Your task to perform on an android device: turn off notifications settings in the gmail app Image 0: 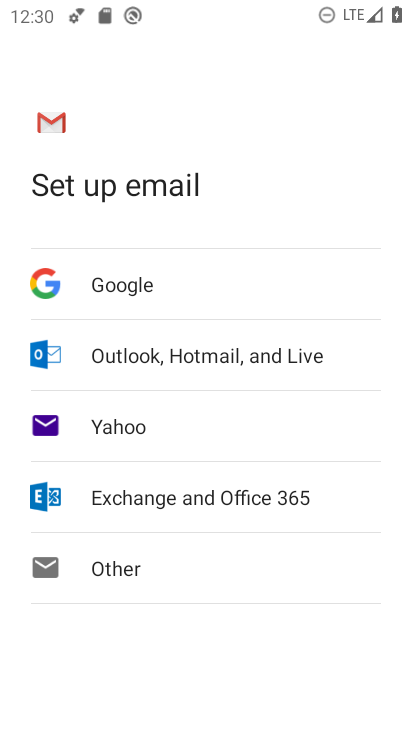
Step 0: press home button
Your task to perform on an android device: turn off notifications settings in the gmail app Image 1: 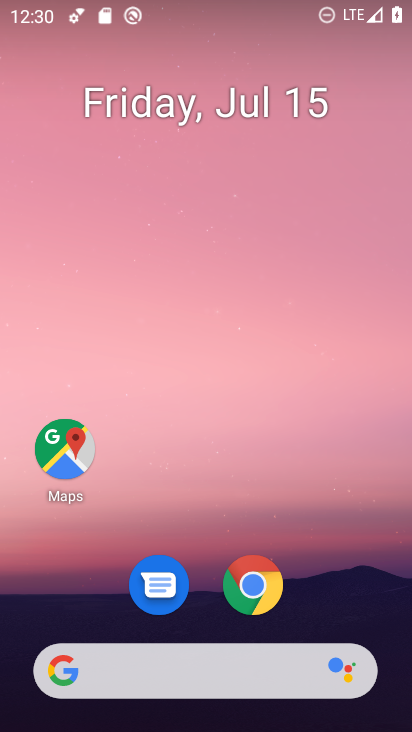
Step 1: drag from (324, 551) to (311, 2)
Your task to perform on an android device: turn off notifications settings in the gmail app Image 2: 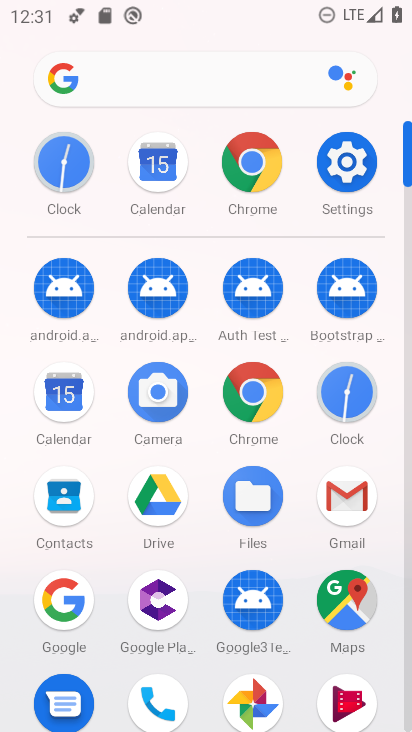
Step 2: click (347, 492)
Your task to perform on an android device: turn off notifications settings in the gmail app Image 3: 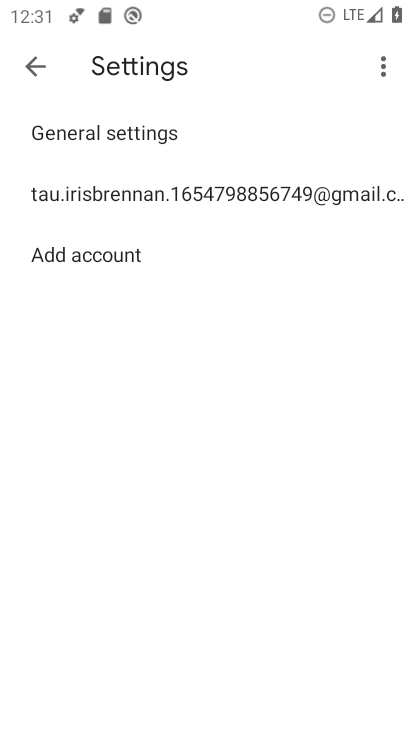
Step 3: click (167, 136)
Your task to perform on an android device: turn off notifications settings in the gmail app Image 4: 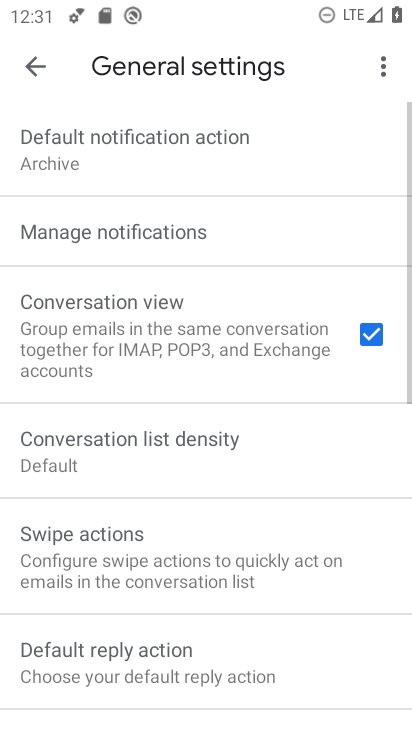
Step 4: click (175, 225)
Your task to perform on an android device: turn off notifications settings in the gmail app Image 5: 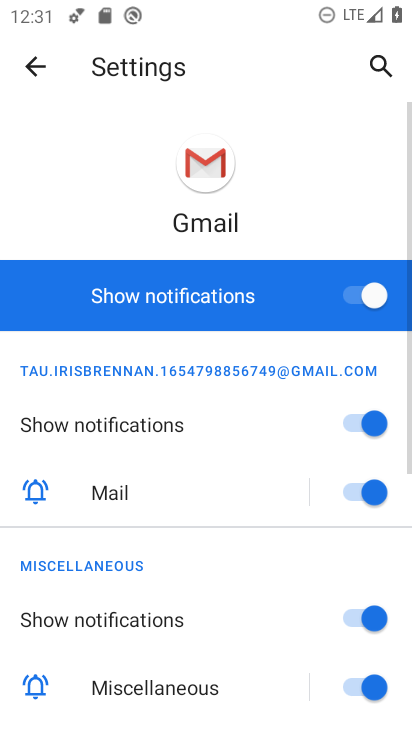
Step 5: click (364, 302)
Your task to perform on an android device: turn off notifications settings in the gmail app Image 6: 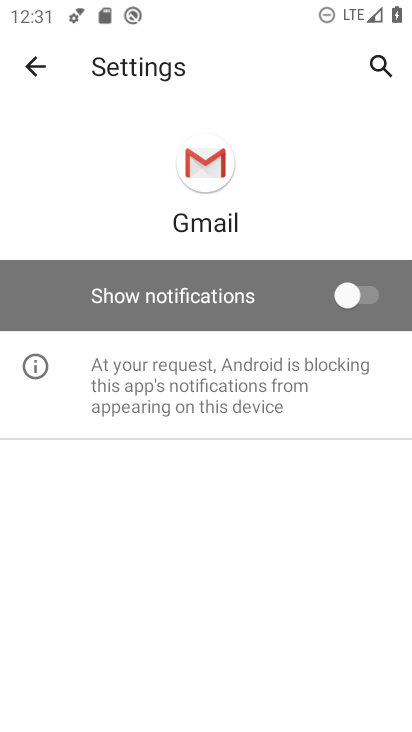
Step 6: task complete